Your task to perform on an android device: uninstall "Microsoft Excel" Image 0: 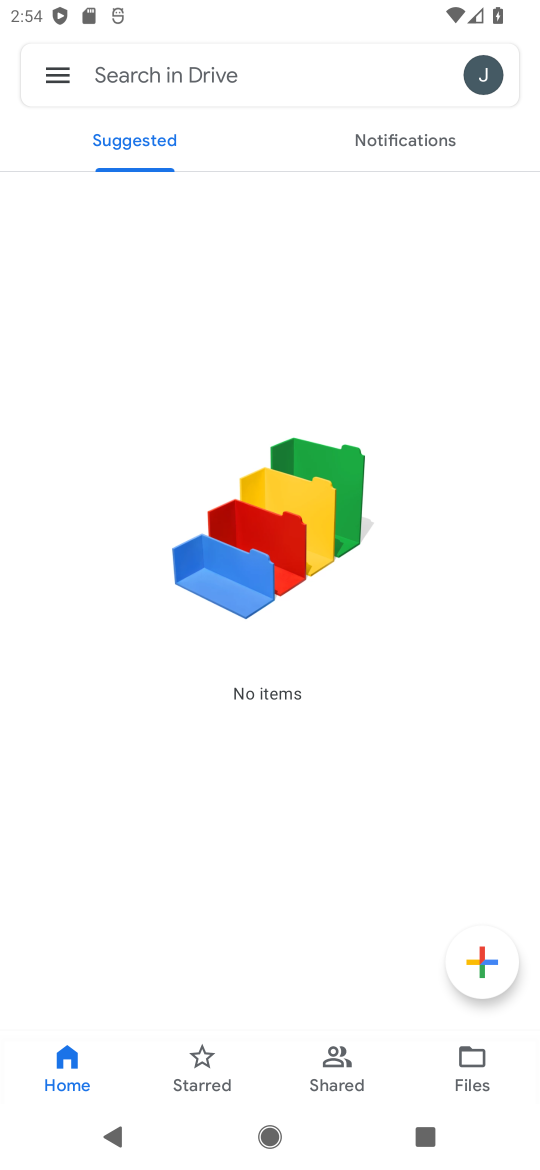
Step 0: press home button
Your task to perform on an android device: uninstall "Microsoft Excel" Image 1: 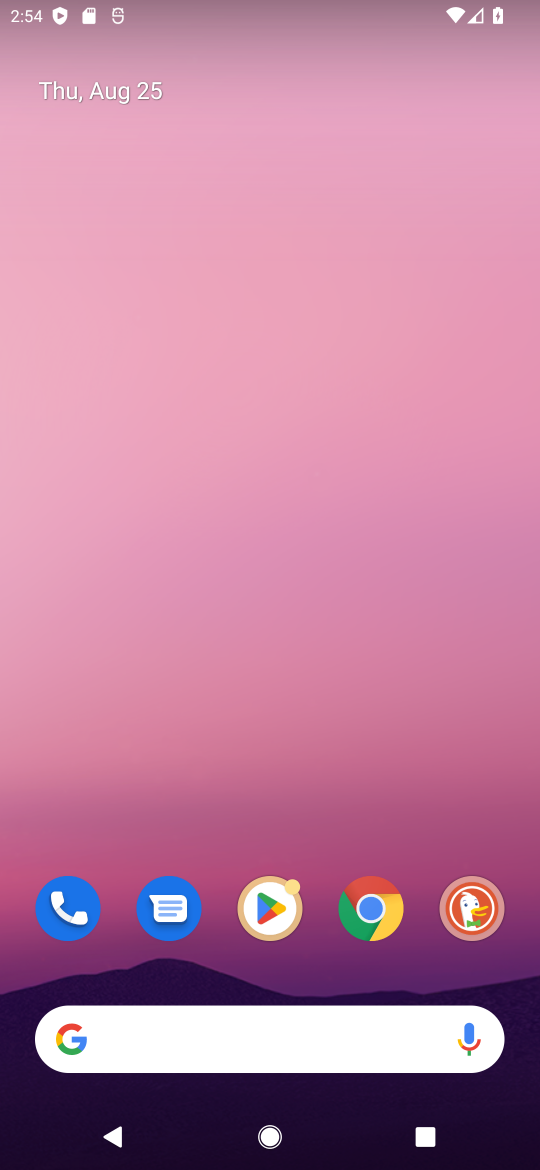
Step 1: click (271, 894)
Your task to perform on an android device: uninstall "Microsoft Excel" Image 2: 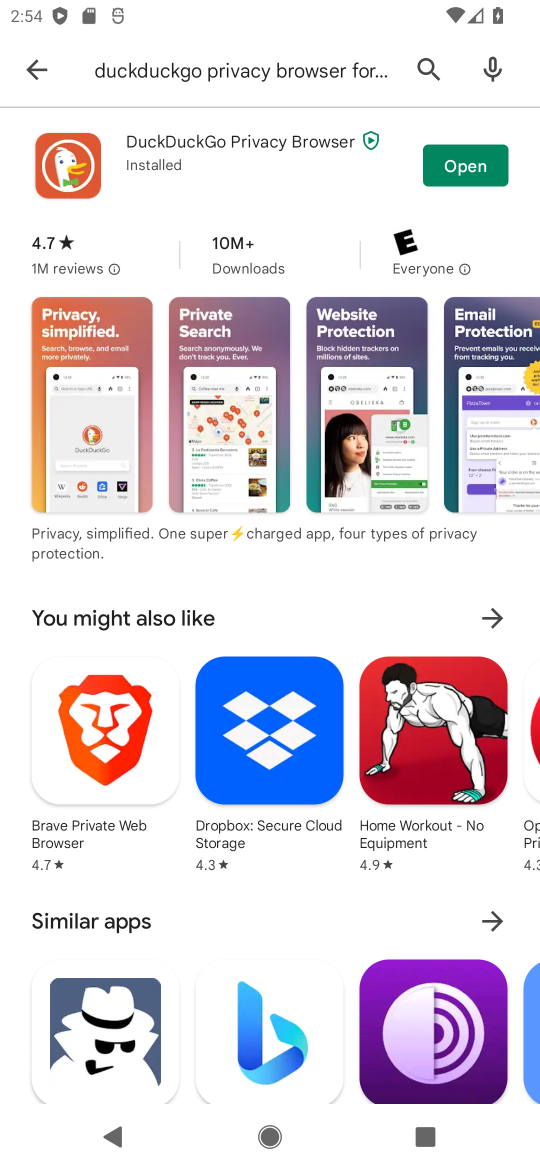
Step 2: click (429, 74)
Your task to perform on an android device: uninstall "Microsoft Excel" Image 3: 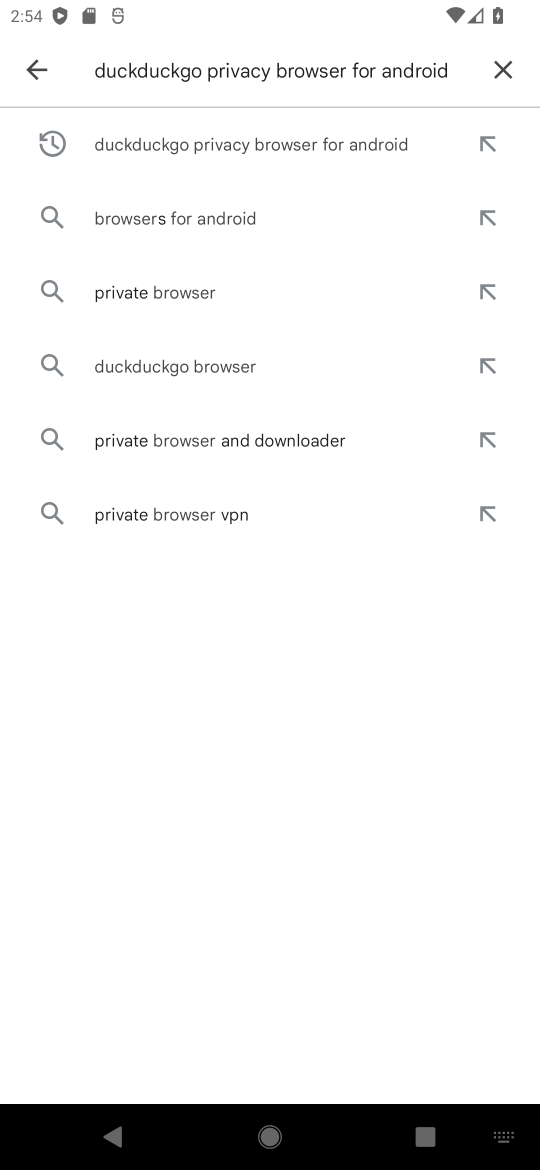
Step 3: click (510, 66)
Your task to perform on an android device: uninstall "Microsoft Excel" Image 4: 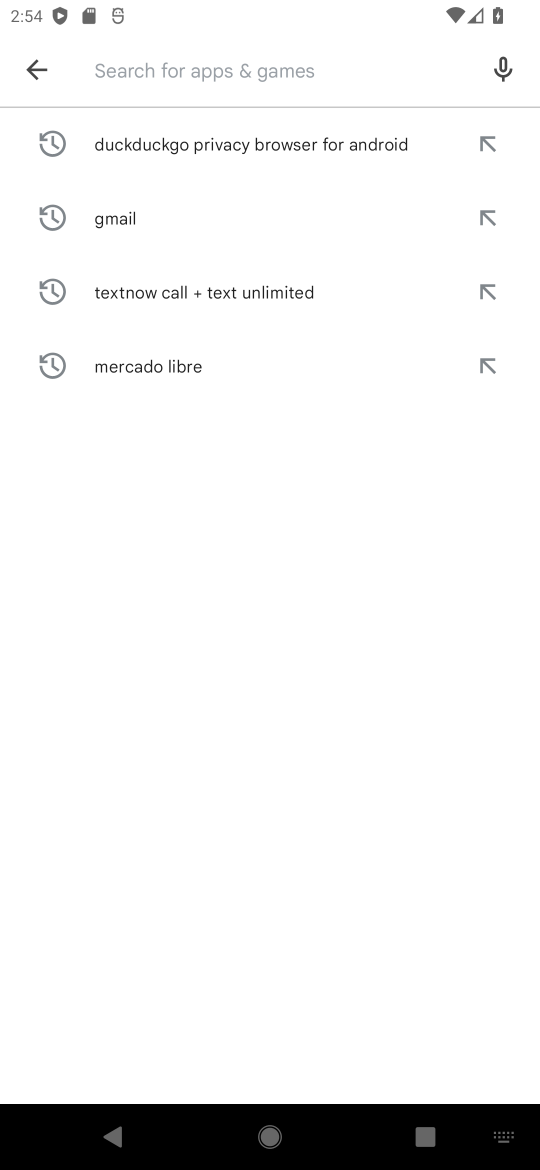
Step 4: type "Microsoft Excel"
Your task to perform on an android device: uninstall "Microsoft Excel" Image 5: 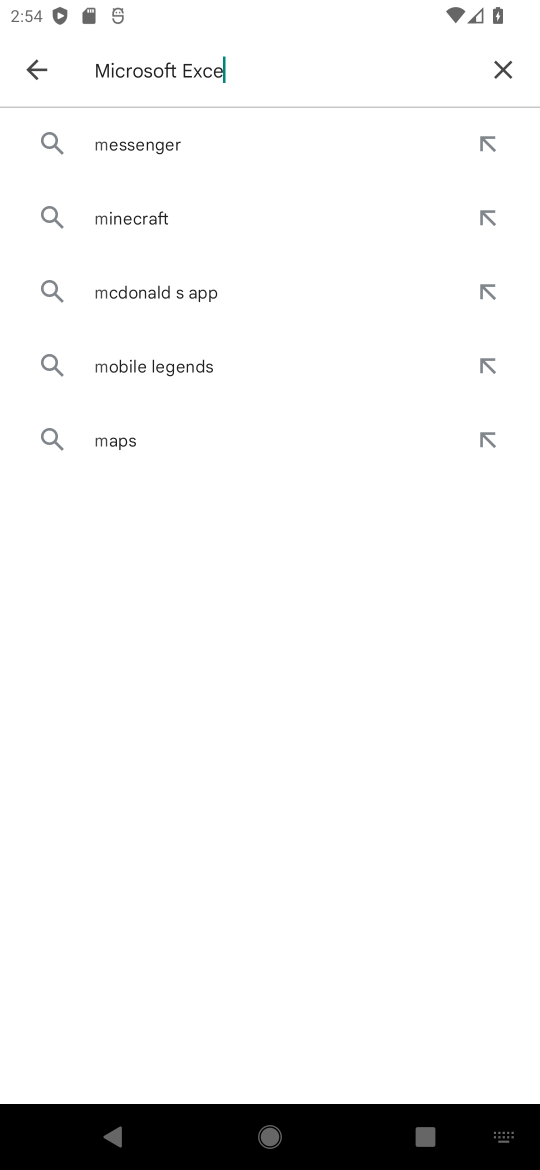
Step 5: type ""
Your task to perform on an android device: uninstall "Microsoft Excel" Image 6: 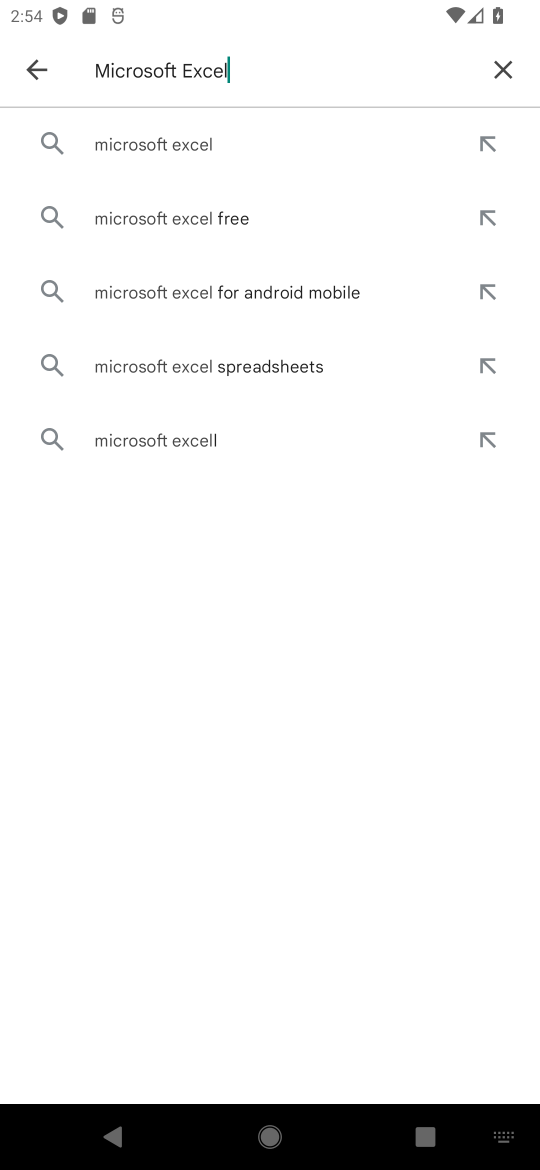
Step 6: click (175, 138)
Your task to perform on an android device: uninstall "Microsoft Excel" Image 7: 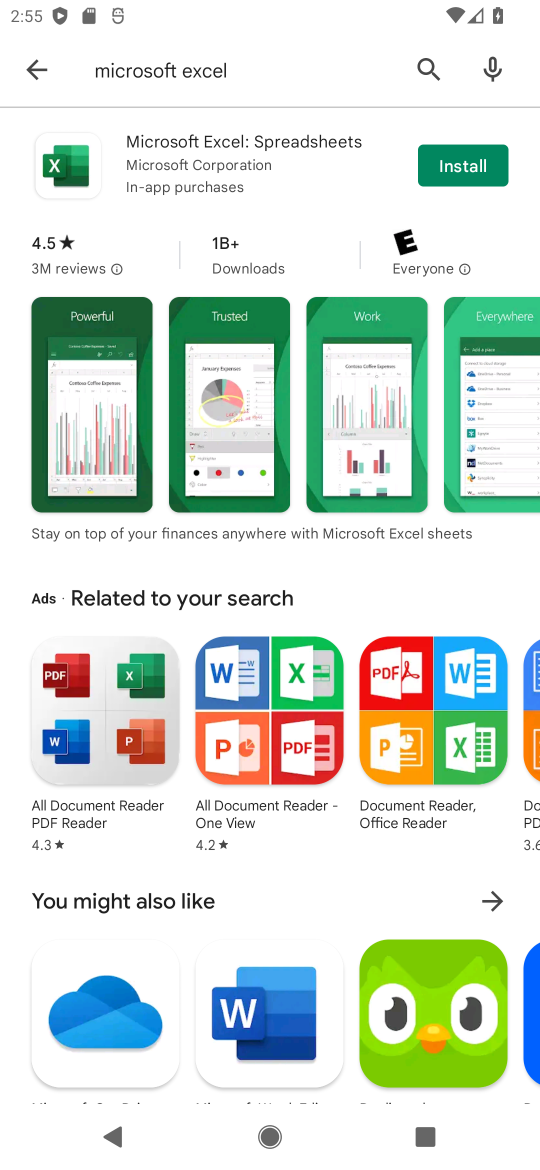
Step 7: click (291, 156)
Your task to perform on an android device: uninstall "Microsoft Excel" Image 8: 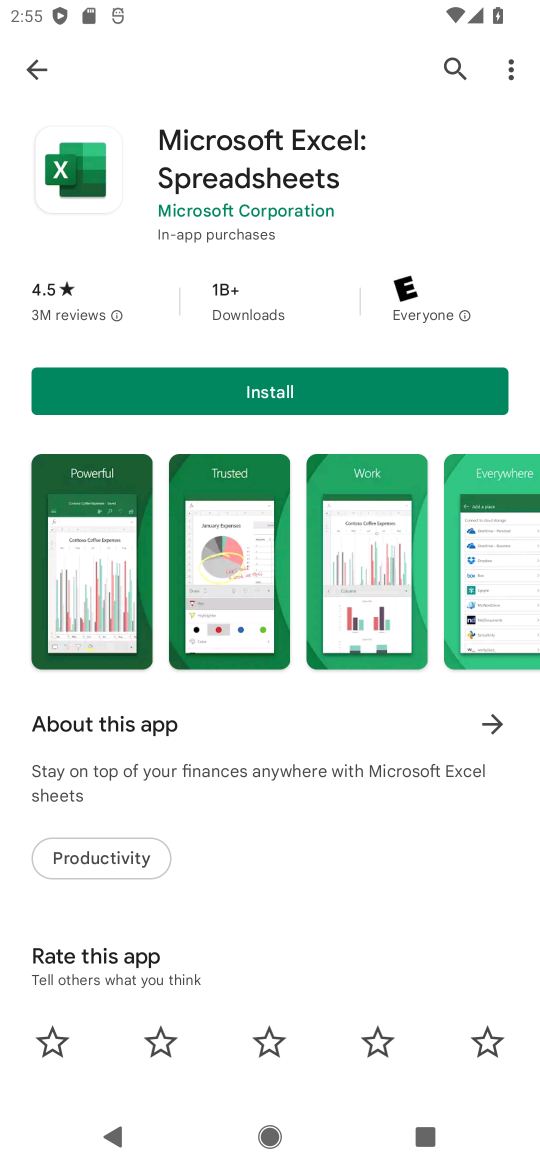
Step 8: task complete